Your task to perform on an android device: turn on notifications settings in the gmail app Image 0: 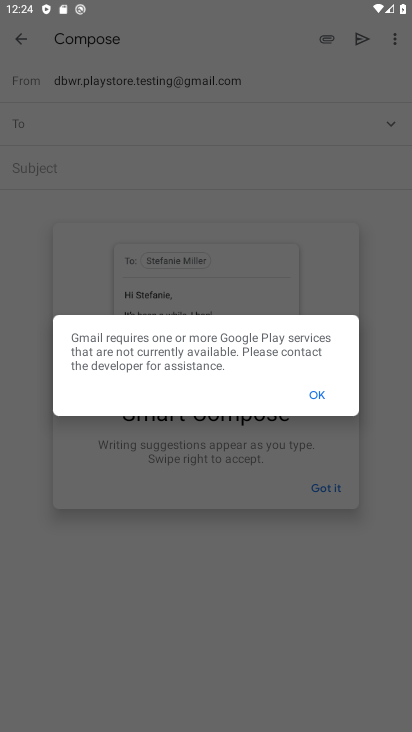
Step 0: press home button
Your task to perform on an android device: turn on notifications settings in the gmail app Image 1: 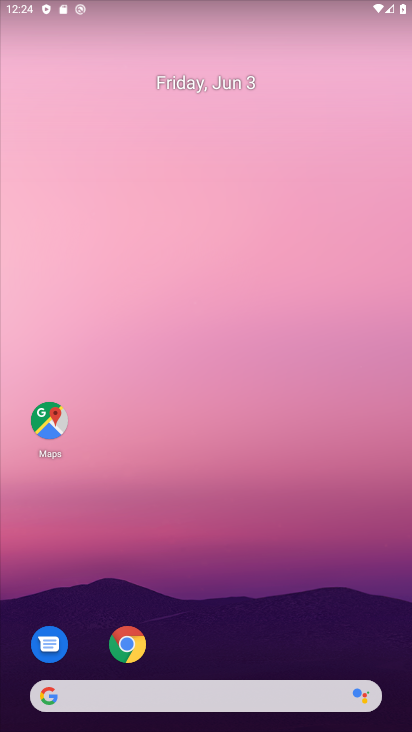
Step 1: drag from (237, 720) to (249, 3)
Your task to perform on an android device: turn on notifications settings in the gmail app Image 2: 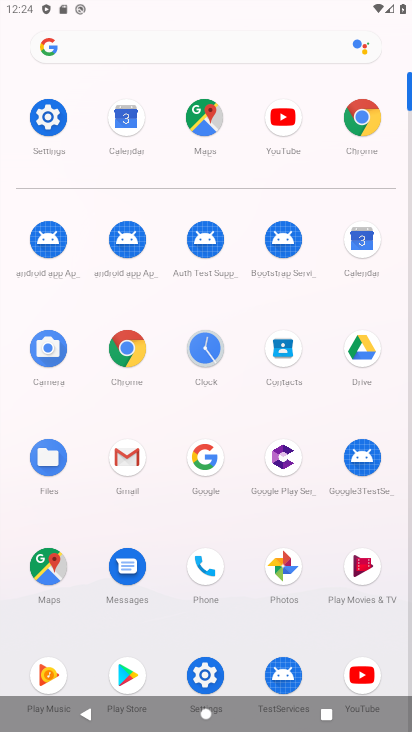
Step 2: click (132, 463)
Your task to perform on an android device: turn on notifications settings in the gmail app Image 3: 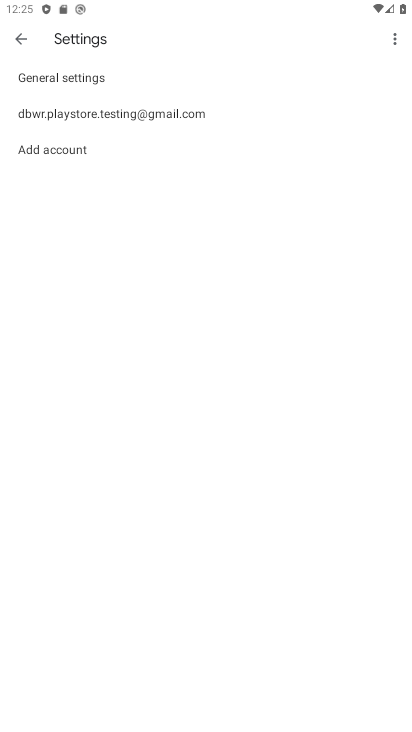
Step 3: click (117, 113)
Your task to perform on an android device: turn on notifications settings in the gmail app Image 4: 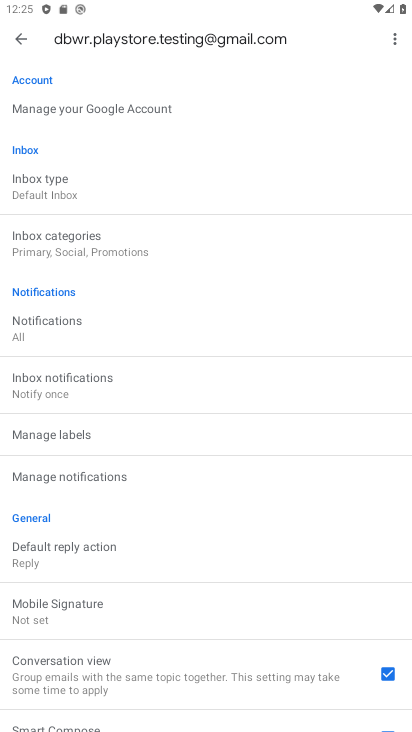
Step 4: task complete